Your task to perform on an android device: Go to location settings Image 0: 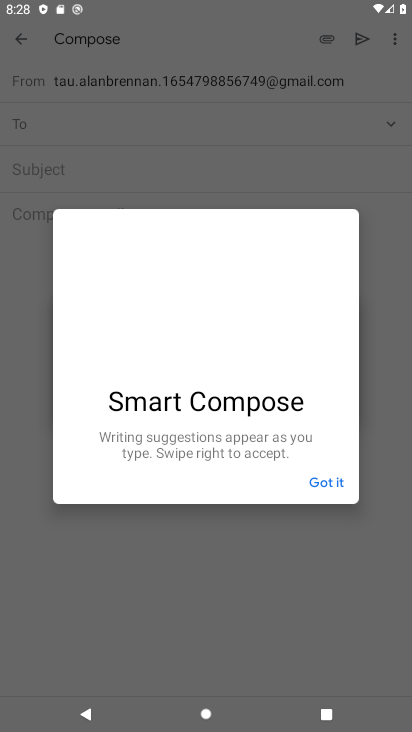
Step 0: press home button
Your task to perform on an android device: Go to location settings Image 1: 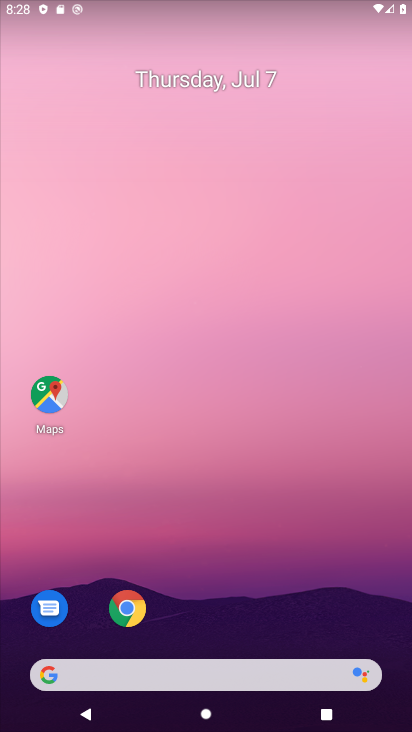
Step 1: click (382, 520)
Your task to perform on an android device: Go to location settings Image 2: 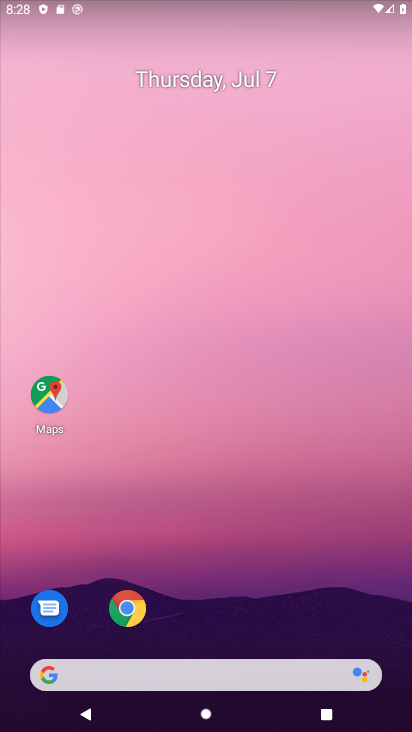
Step 2: drag from (209, 678) to (249, 360)
Your task to perform on an android device: Go to location settings Image 3: 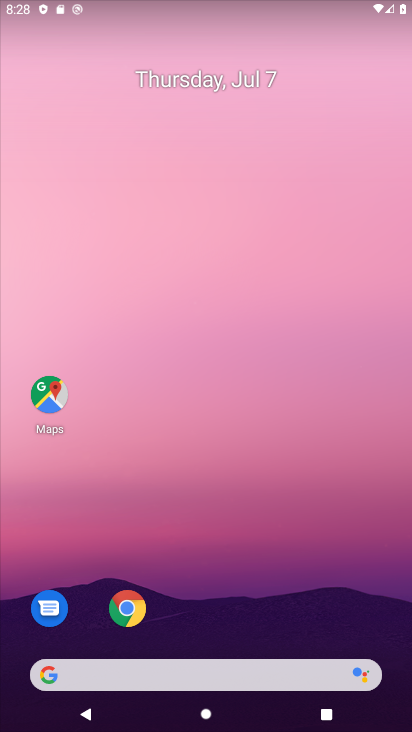
Step 3: click (194, 582)
Your task to perform on an android device: Go to location settings Image 4: 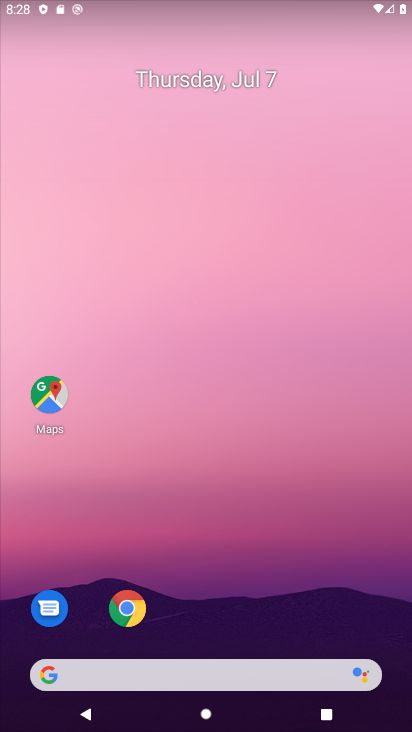
Step 4: drag from (189, 661) to (212, 420)
Your task to perform on an android device: Go to location settings Image 5: 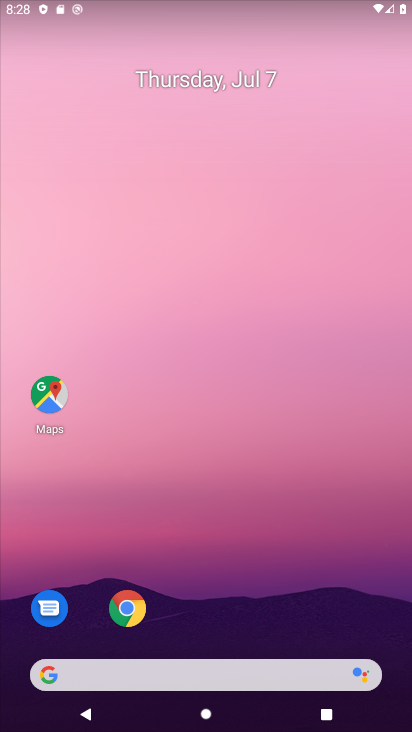
Step 5: drag from (174, 670) to (197, 460)
Your task to perform on an android device: Go to location settings Image 6: 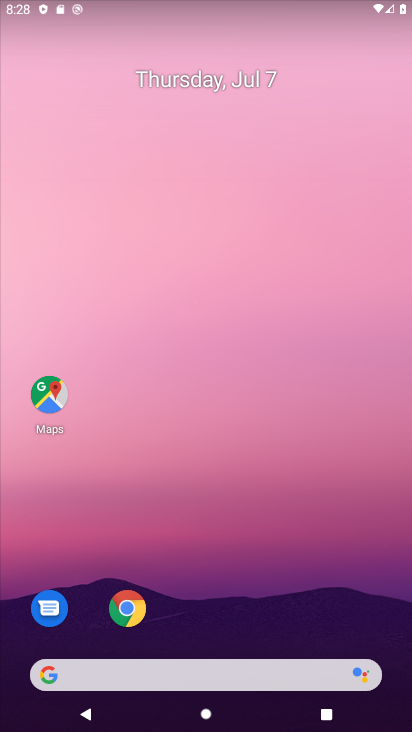
Step 6: drag from (187, 666) to (237, 272)
Your task to perform on an android device: Go to location settings Image 7: 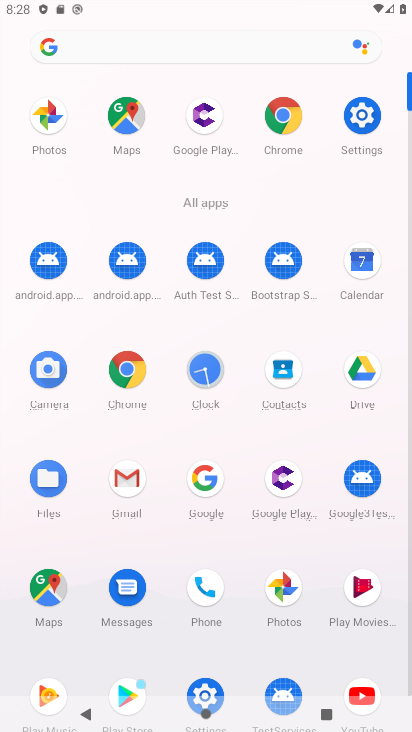
Step 7: click (363, 135)
Your task to perform on an android device: Go to location settings Image 8: 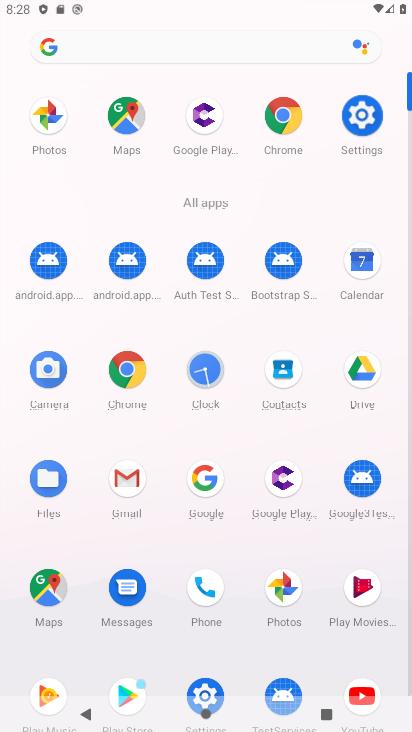
Step 8: click (363, 135)
Your task to perform on an android device: Go to location settings Image 9: 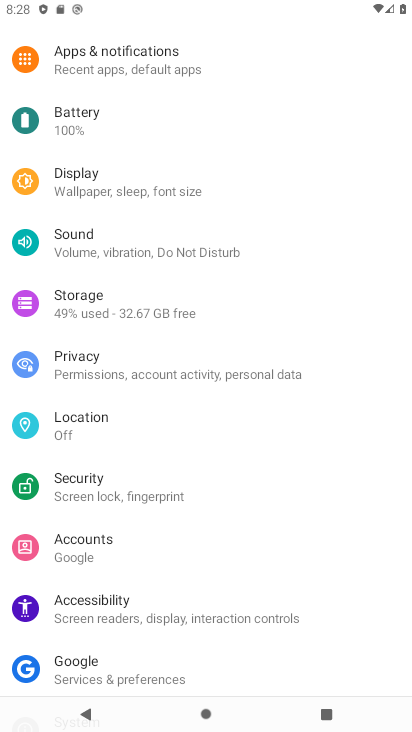
Step 9: click (92, 434)
Your task to perform on an android device: Go to location settings Image 10: 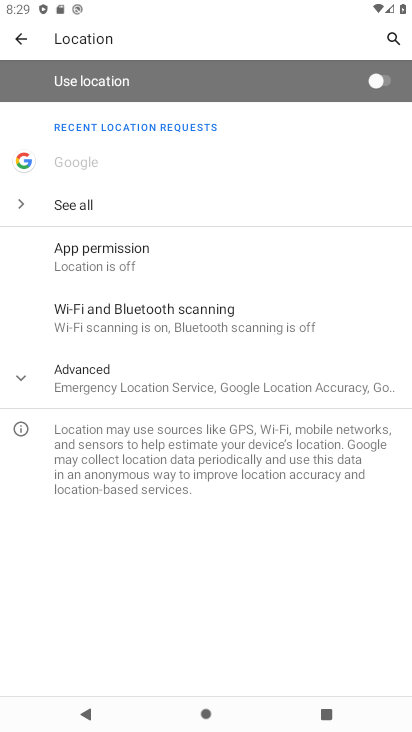
Step 10: task complete